Your task to perform on an android device: toggle notification dots Image 0: 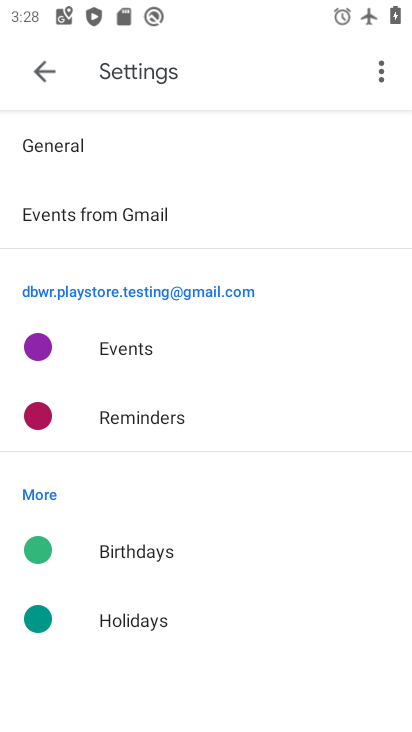
Step 0: press home button
Your task to perform on an android device: toggle notification dots Image 1: 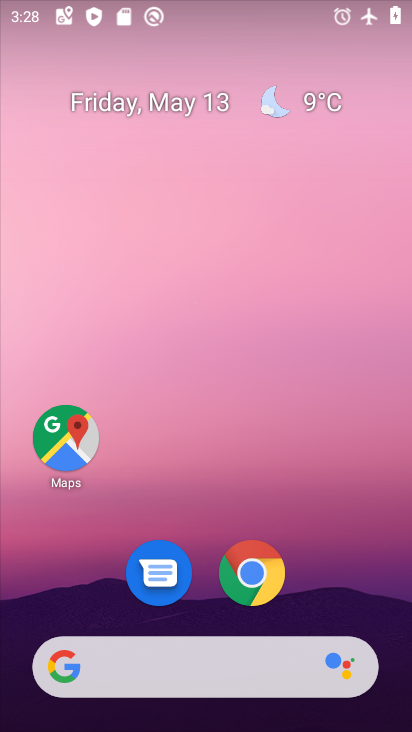
Step 1: drag from (188, 518) to (237, 109)
Your task to perform on an android device: toggle notification dots Image 2: 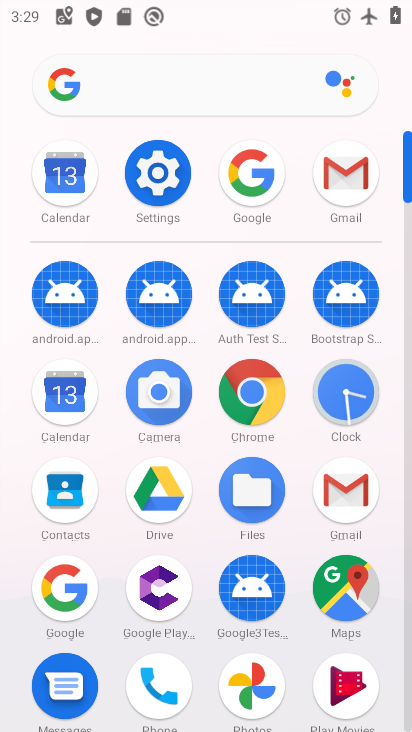
Step 2: click (156, 164)
Your task to perform on an android device: toggle notification dots Image 3: 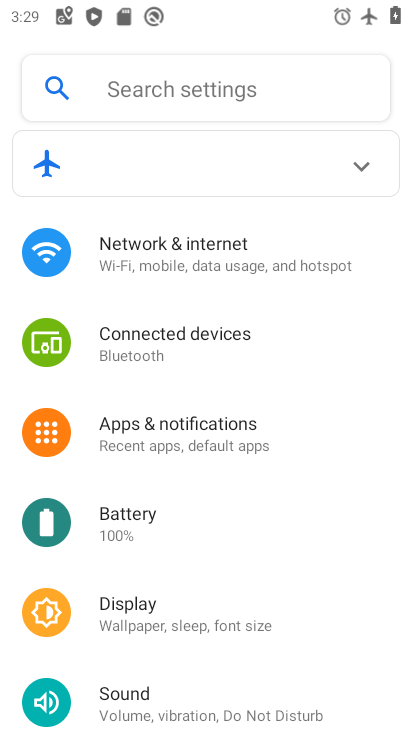
Step 3: drag from (149, 482) to (197, 383)
Your task to perform on an android device: toggle notification dots Image 4: 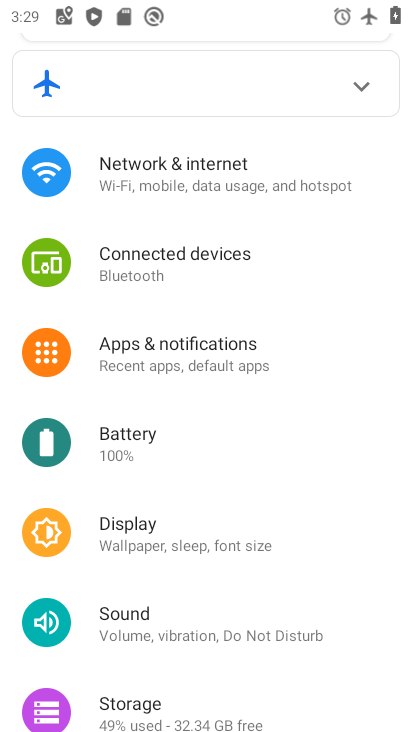
Step 4: drag from (173, 512) to (244, 426)
Your task to perform on an android device: toggle notification dots Image 5: 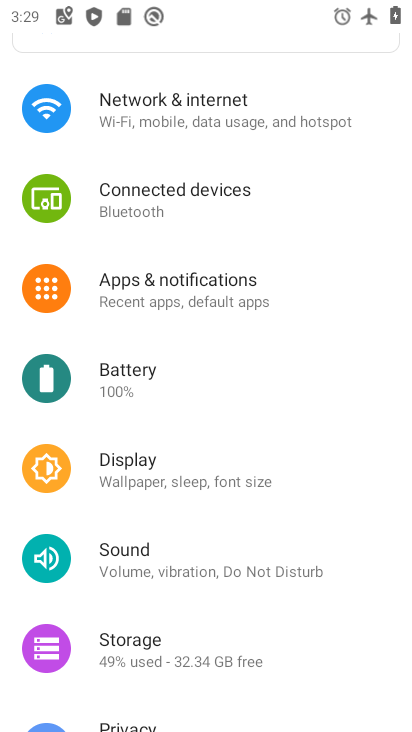
Step 5: click (189, 297)
Your task to perform on an android device: toggle notification dots Image 6: 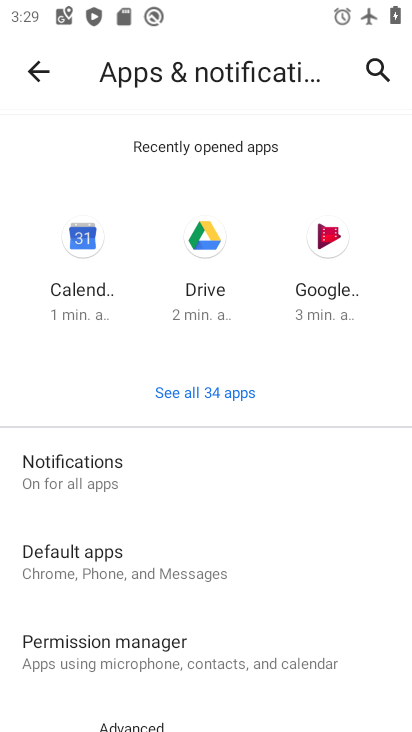
Step 6: click (57, 459)
Your task to perform on an android device: toggle notification dots Image 7: 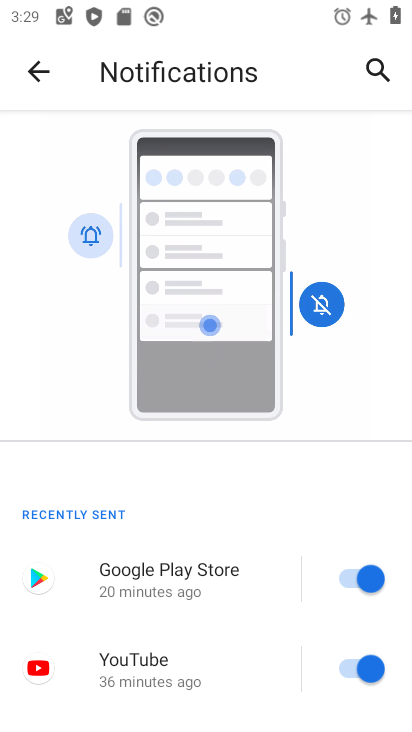
Step 7: drag from (192, 535) to (226, 228)
Your task to perform on an android device: toggle notification dots Image 8: 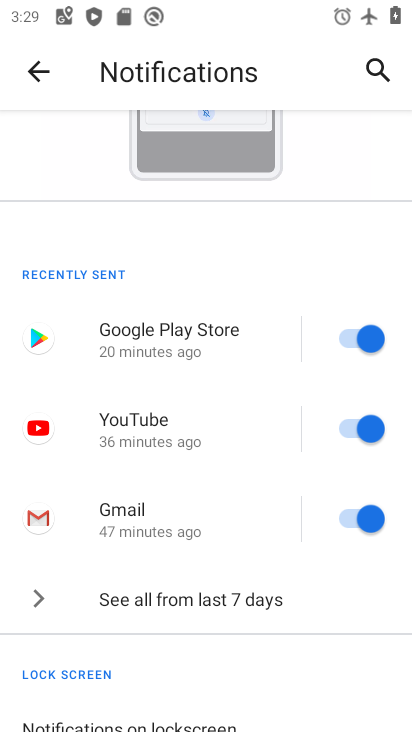
Step 8: drag from (139, 639) to (229, 378)
Your task to perform on an android device: toggle notification dots Image 9: 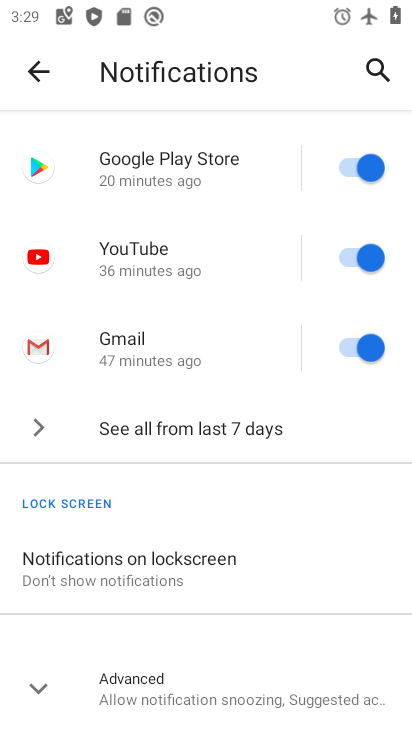
Step 9: click (189, 691)
Your task to perform on an android device: toggle notification dots Image 10: 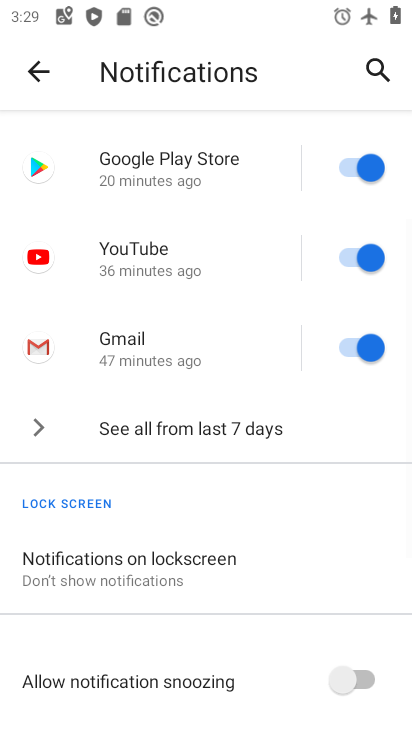
Step 10: drag from (142, 633) to (215, 474)
Your task to perform on an android device: toggle notification dots Image 11: 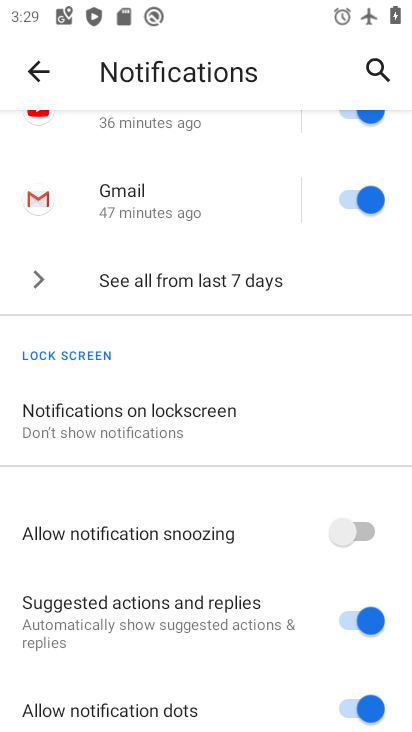
Step 11: drag from (185, 568) to (247, 479)
Your task to perform on an android device: toggle notification dots Image 12: 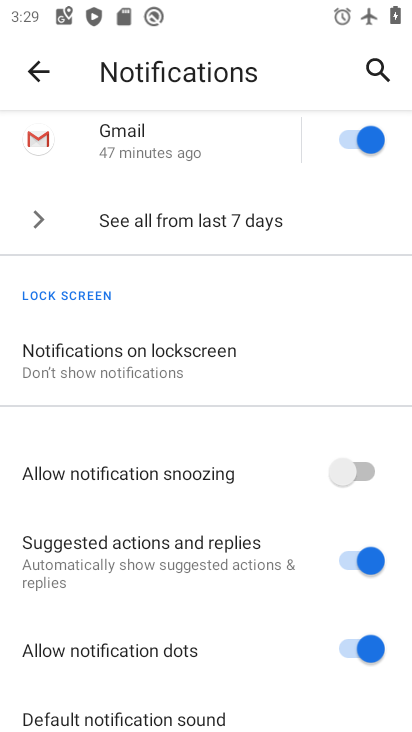
Step 12: drag from (178, 501) to (216, 370)
Your task to perform on an android device: toggle notification dots Image 13: 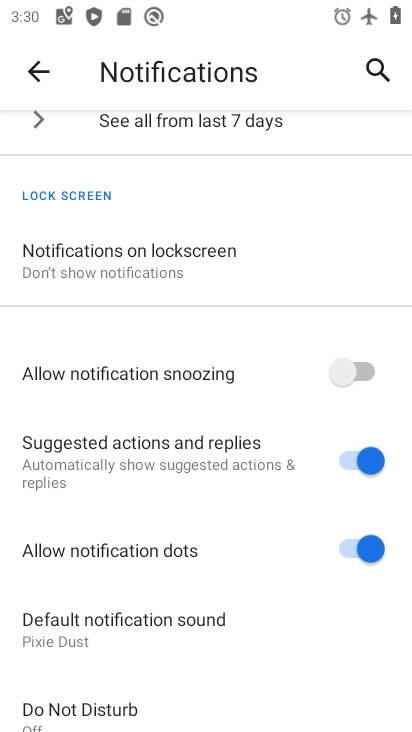
Step 13: click (356, 555)
Your task to perform on an android device: toggle notification dots Image 14: 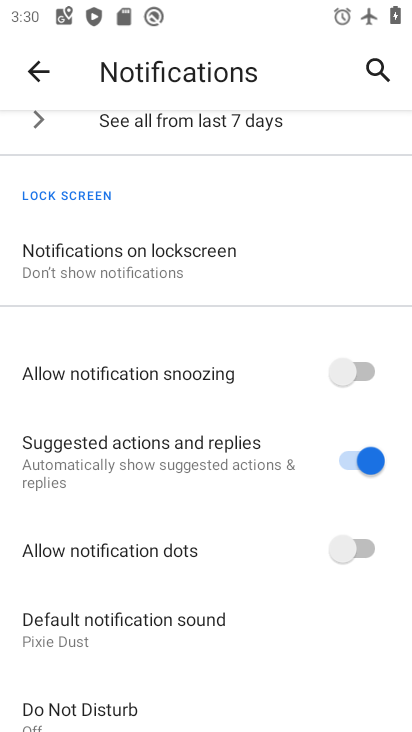
Step 14: task complete